Your task to perform on an android device: Open calendar and show me the first week of next month Image 0: 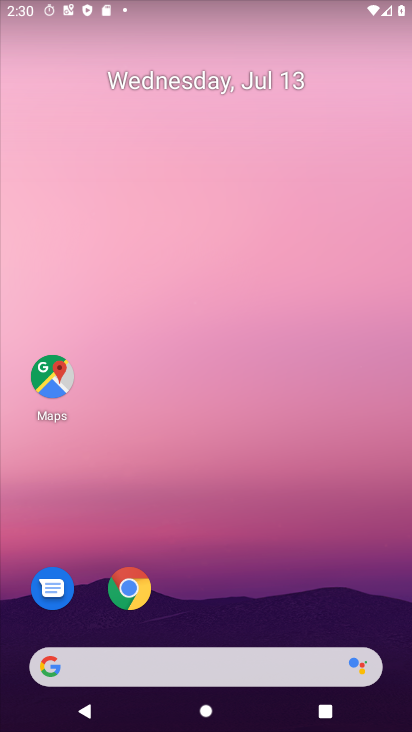
Step 0: press home button
Your task to perform on an android device: Open calendar and show me the first week of next month Image 1: 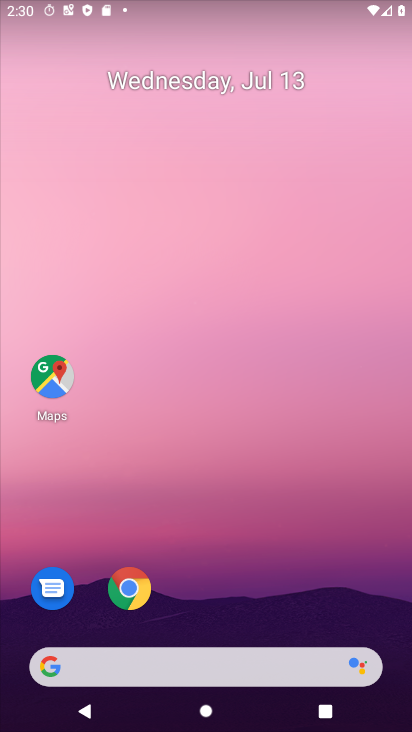
Step 1: drag from (154, 654) to (255, 159)
Your task to perform on an android device: Open calendar and show me the first week of next month Image 2: 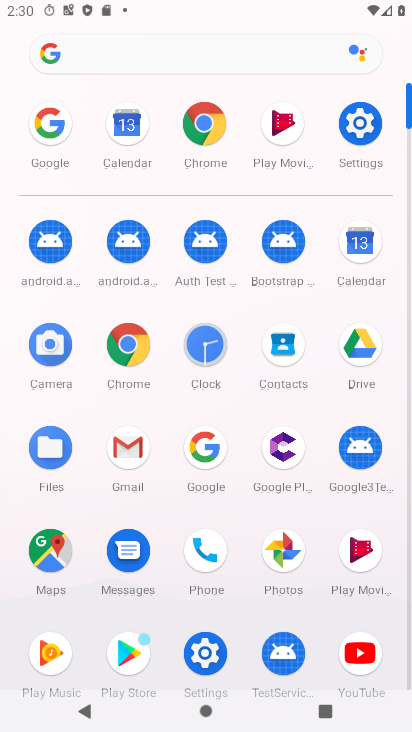
Step 2: click (365, 255)
Your task to perform on an android device: Open calendar and show me the first week of next month Image 3: 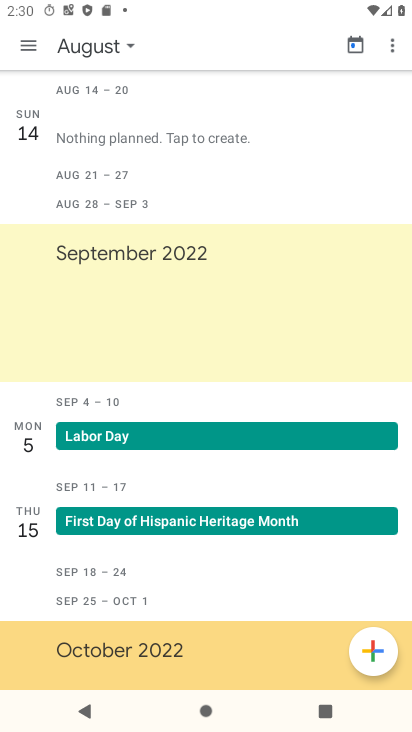
Step 3: click (111, 52)
Your task to perform on an android device: Open calendar and show me the first week of next month Image 4: 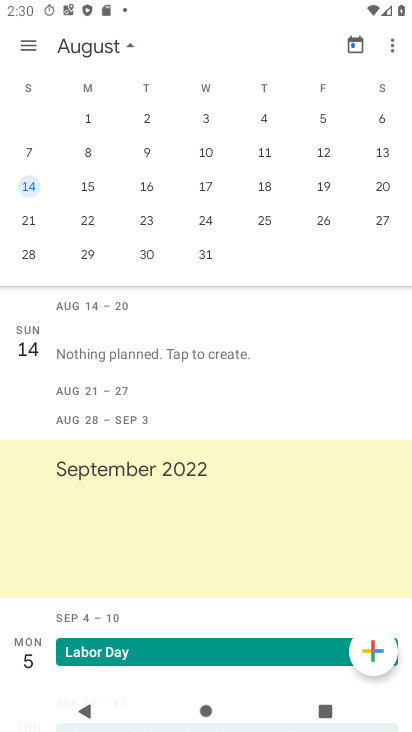
Step 4: click (87, 119)
Your task to perform on an android device: Open calendar and show me the first week of next month Image 5: 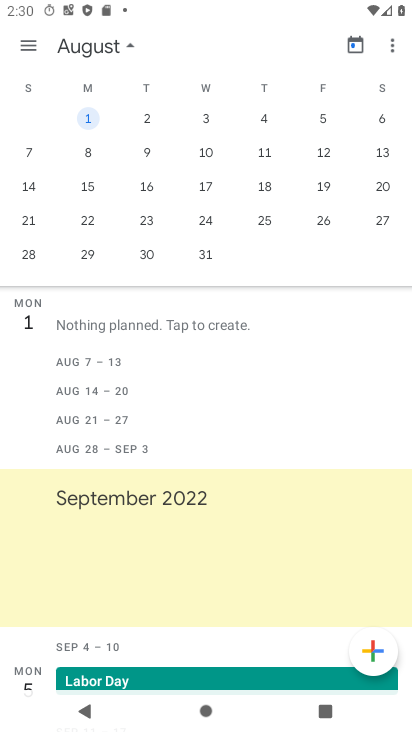
Step 5: task complete